Your task to perform on an android device: What's the weather going to be tomorrow? Image 0: 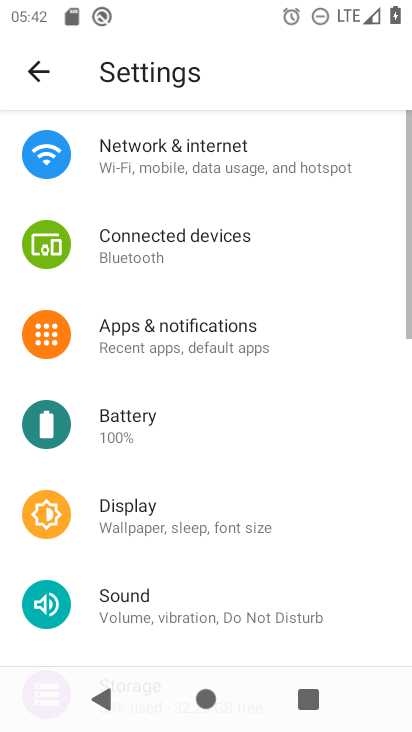
Step 0: press home button
Your task to perform on an android device: What's the weather going to be tomorrow? Image 1: 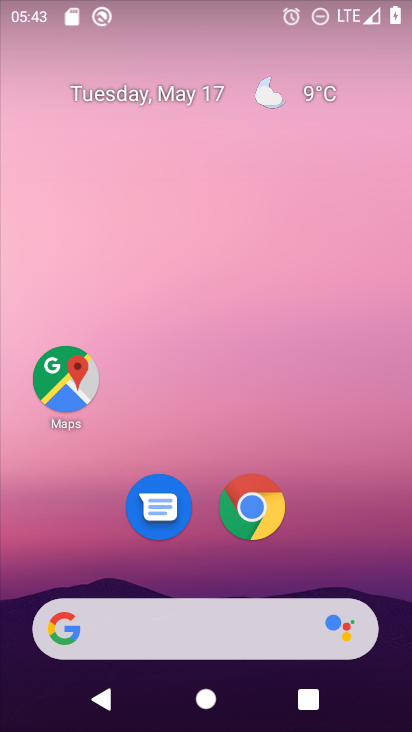
Step 1: click (282, 97)
Your task to perform on an android device: What's the weather going to be tomorrow? Image 2: 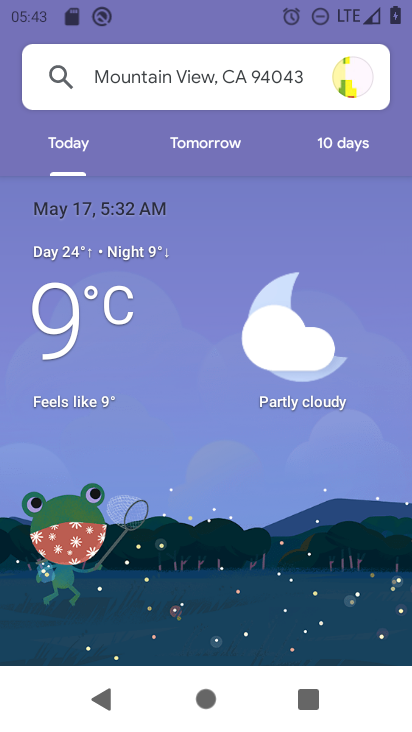
Step 2: click (205, 153)
Your task to perform on an android device: What's the weather going to be tomorrow? Image 3: 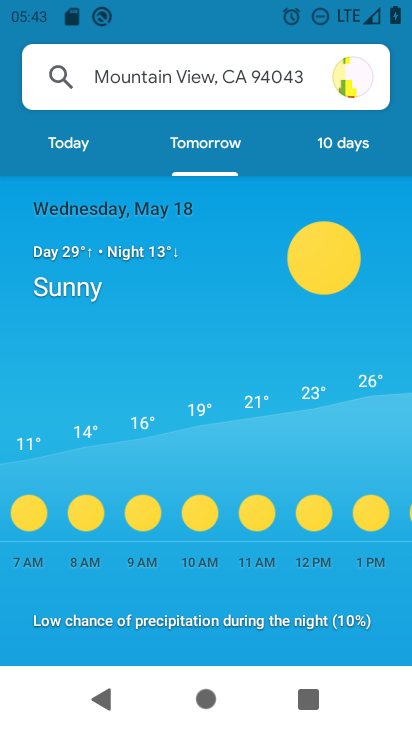
Step 3: task complete